Your task to perform on an android device: check battery use Image 0: 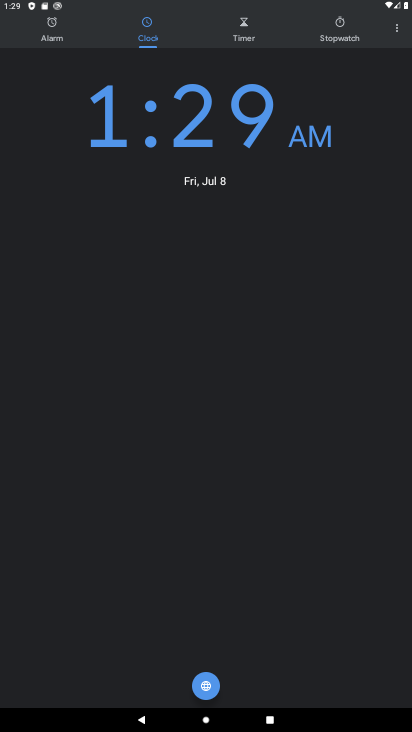
Step 0: press home button
Your task to perform on an android device: check battery use Image 1: 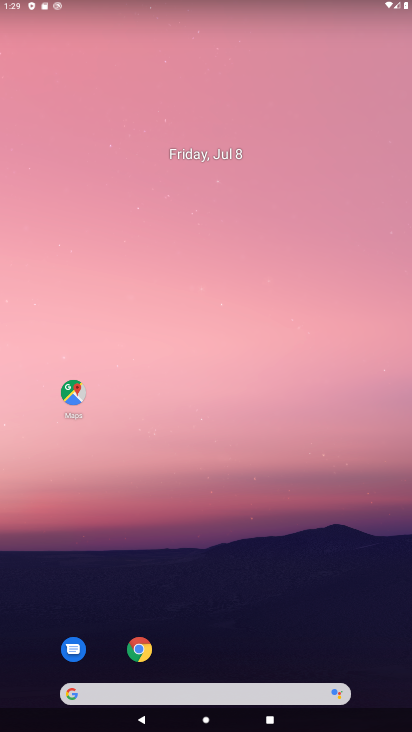
Step 1: drag from (337, 650) to (249, 158)
Your task to perform on an android device: check battery use Image 2: 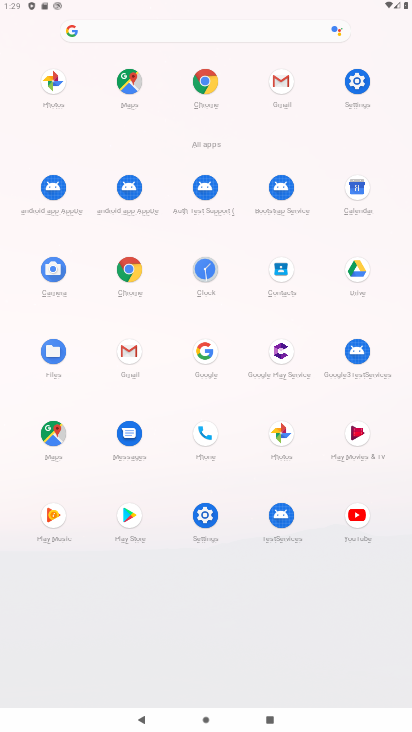
Step 2: click (352, 79)
Your task to perform on an android device: check battery use Image 3: 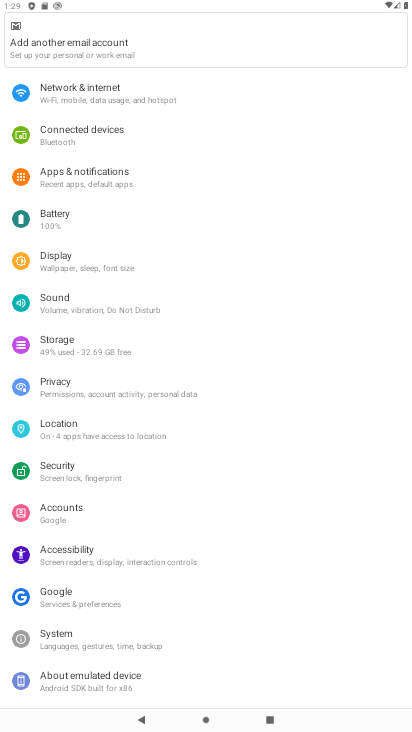
Step 3: click (43, 218)
Your task to perform on an android device: check battery use Image 4: 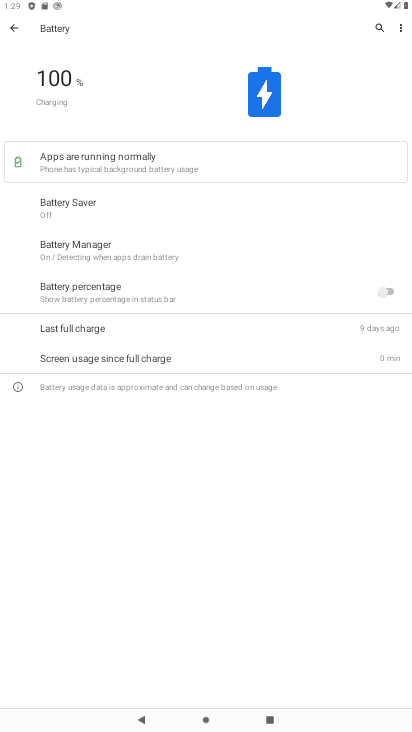
Step 4: click (403, 25)
Your task to perform on an android device: check battery use Image 5: 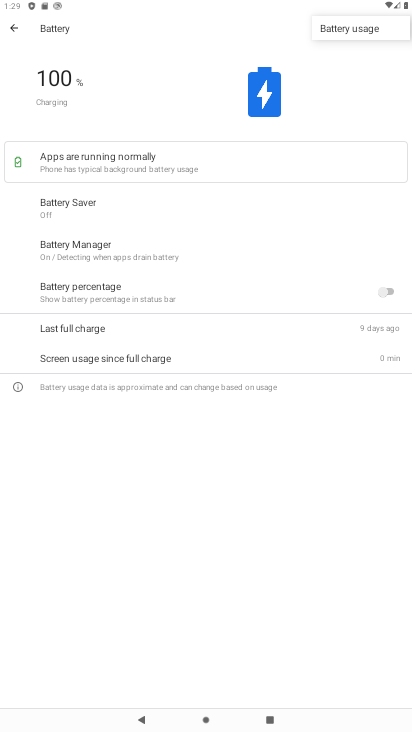
Step 5: click (346, 29)
Your task to perform on an android device: check battery use Image 6: 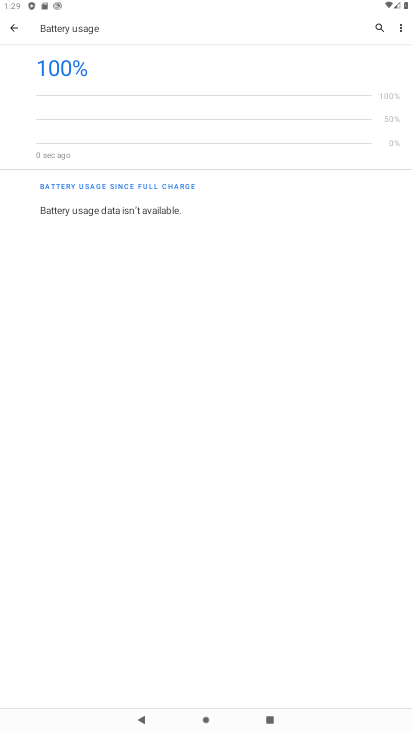
Step 6: task complete